Your task to perform on an android device: turn off location history Image 0: 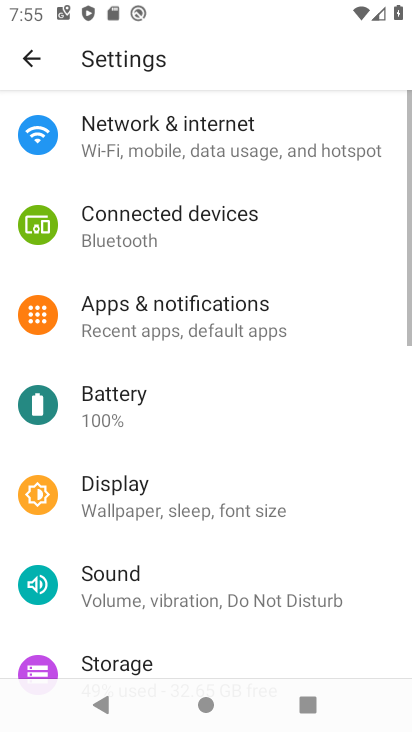
Step 0: drag from (187, 575) to (195, 292)
Your task to perform on an android device: turn off location history Image 1: 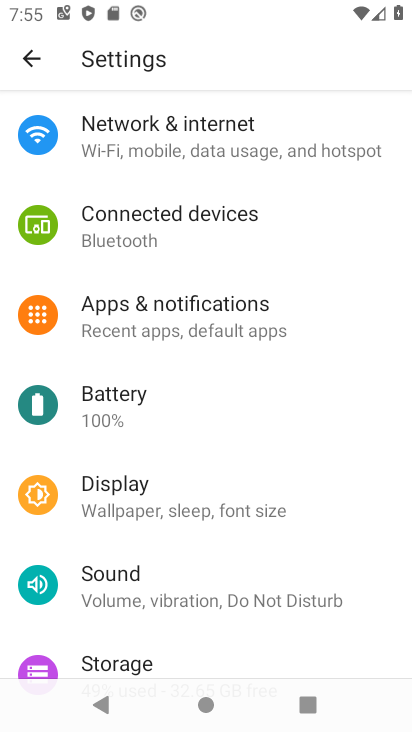
Step 1: drag from (236, 606) to (287, 222)
Your task to perform on an android device: turn off location history Image 2: 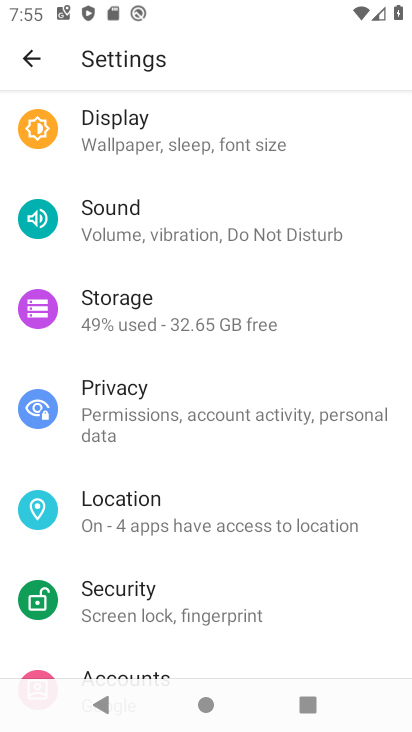
Step 2: drag from (186, 647) to (193, 463)
Your task to perform on an android device: turn off location history Image 3: 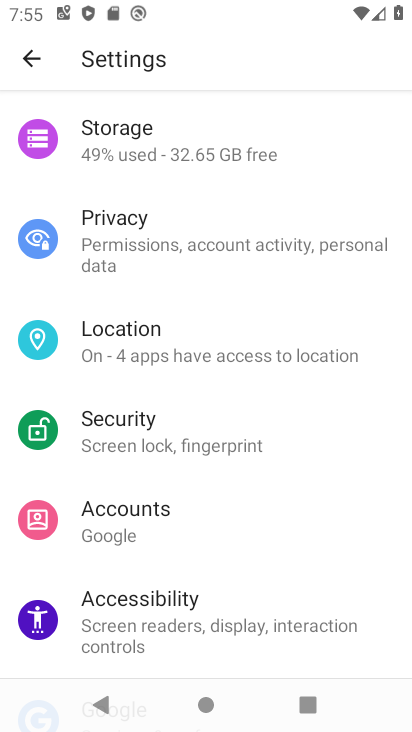
Step 3: click (147, 353)
Your task to perform on an android device: turn off location history Image 4: 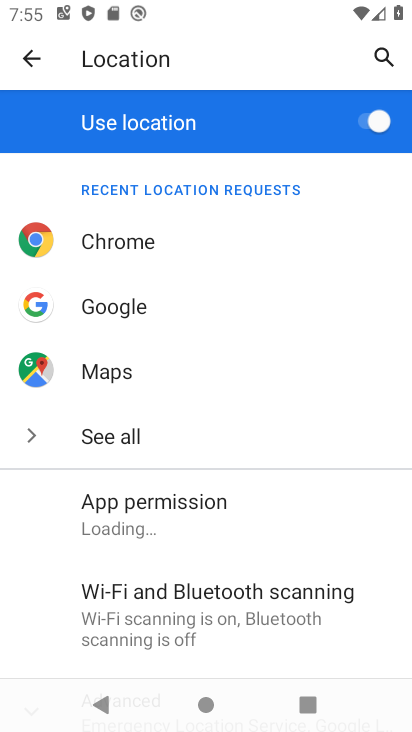
Step 4: drag from (146, 605) to (183, 237)
Your task to perform on an android device: turn off location history Image 5: 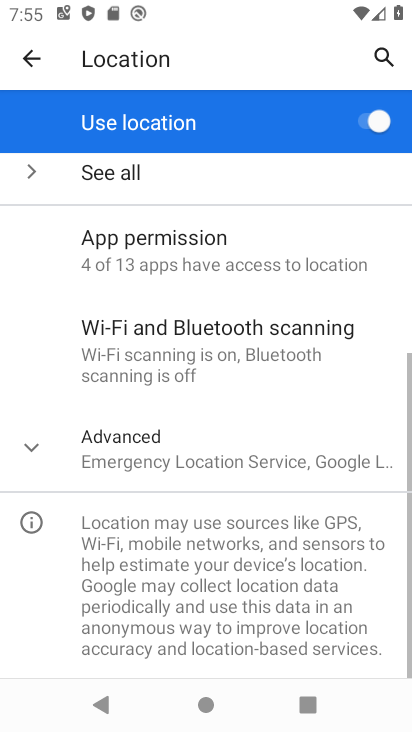
Step 5: click (144, 452)
Your task to perform on an android device: turn off location history Image 6: 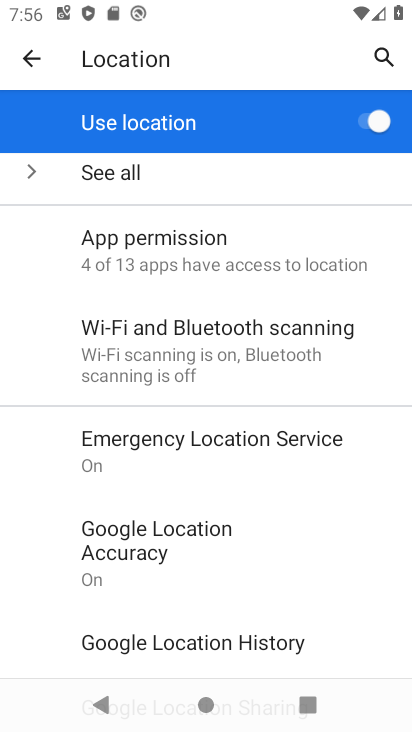
Step 6: drag from (224, 565) to (261, 253)
Your task to perform on an android device: turn off location history Image 7: 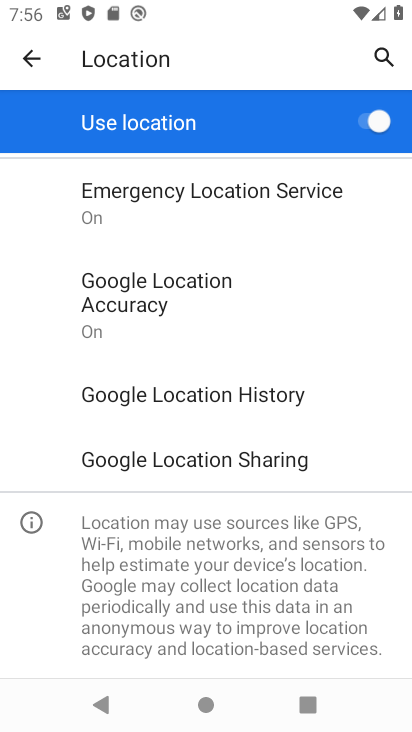
Step 7: click (164, 393)
Your task to perform on an android device: turn off location history Image 8: 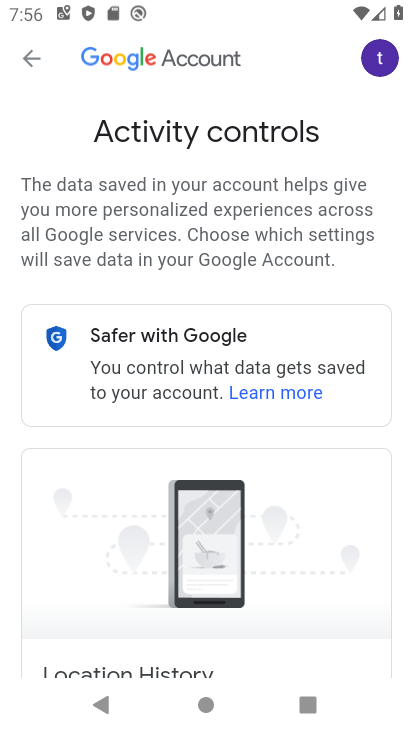
Step 8: task complete